Your task to perform on an android device: What's the weather today? Image 0: 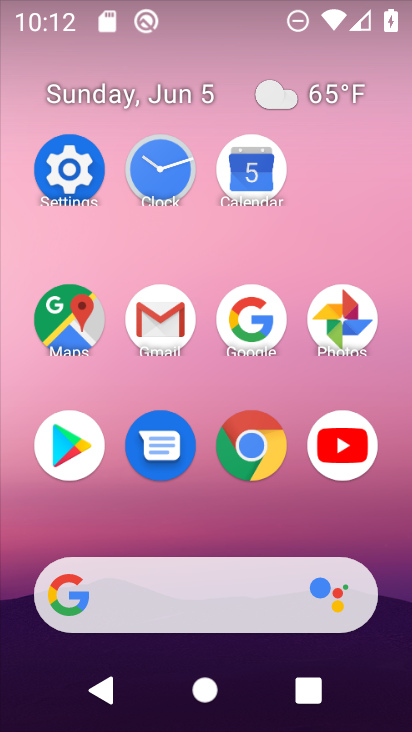
Step 0: click (270, 344)
Your task to perform on an android device: What's the weather today? Image 1: 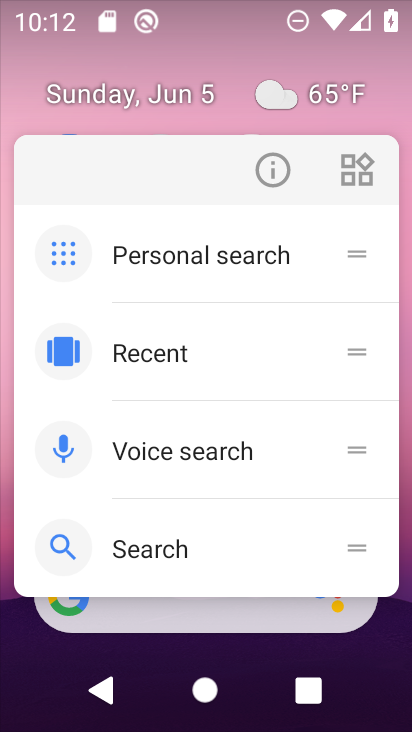
Step 1: click (386, 72)
Your task to perform on an android device: What's the weather today? Image 2: 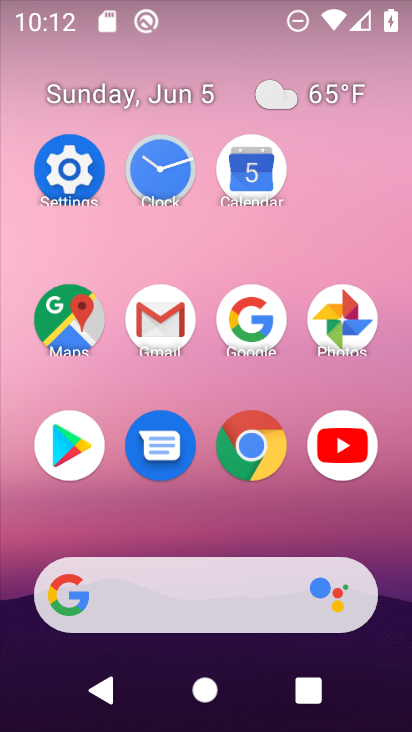
Step 2: click (241, 315)
Your task to perform on an android device: What's the weather today? Image 3: 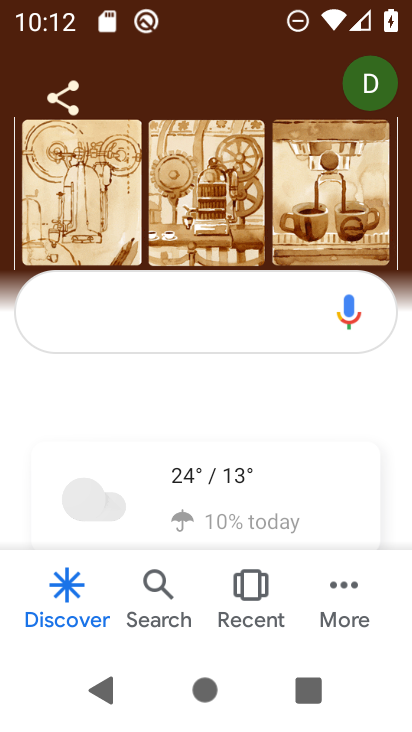
Step 3: task complete